Your task to perform on an android device: change alarm snooze length Image 0: 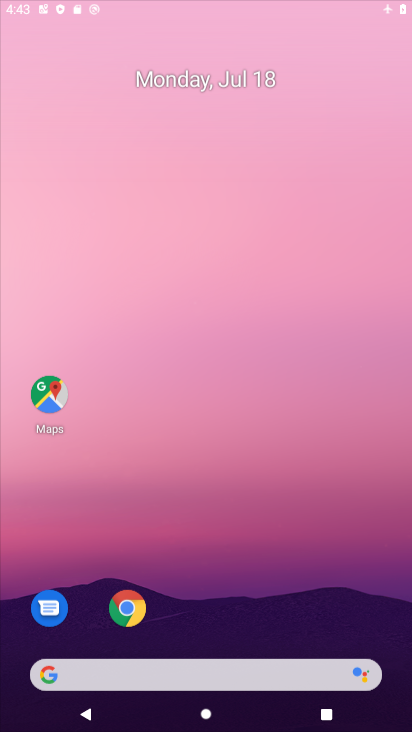
Step 0: click (230, 53)
Your task to perform on an android device: change alarm snooze length Image 1: 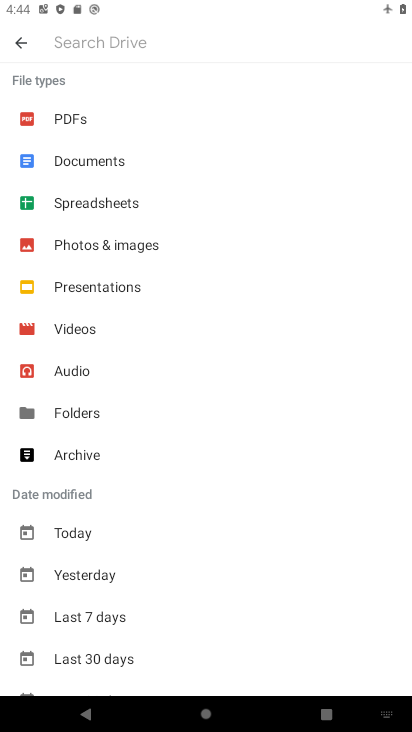
Step 1: press home button
Your task to perform on an android device: change alarm snooze length Image 2: 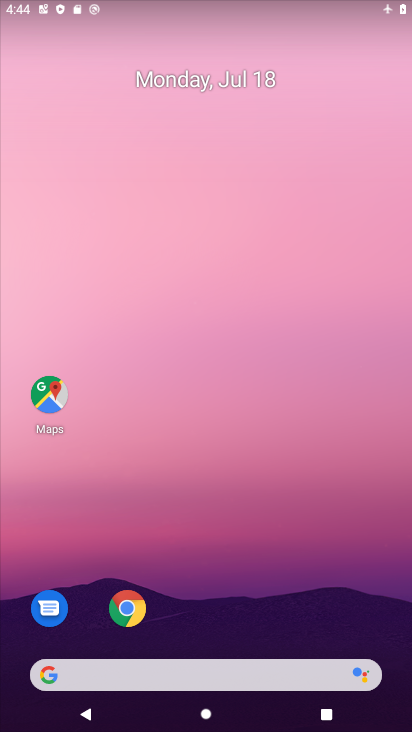
Step 2: drag from (271, 599) to (272, 140)
Your task to perform on an android device: change alarm snooze length Image 3: 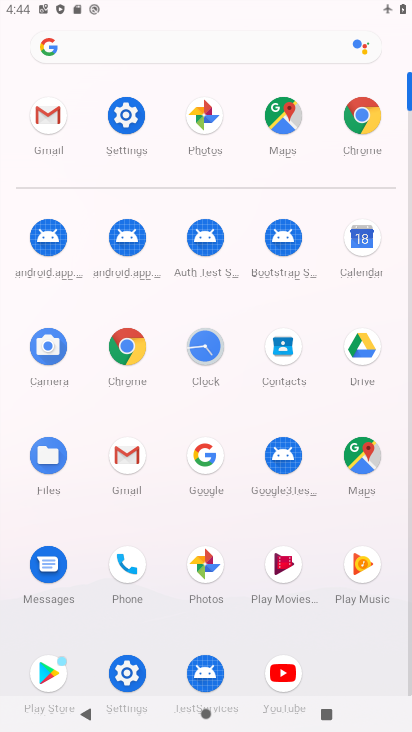
Step 3: click (213, 344)
Your task to perform on an android device: change alarm snooze length Image 4: 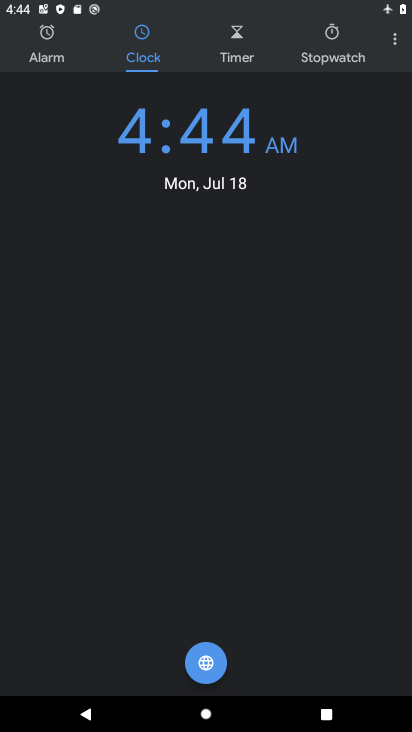
Step 4: click (398, 42)
Your task to perform on an android device: change alarm snooze length Image 5: 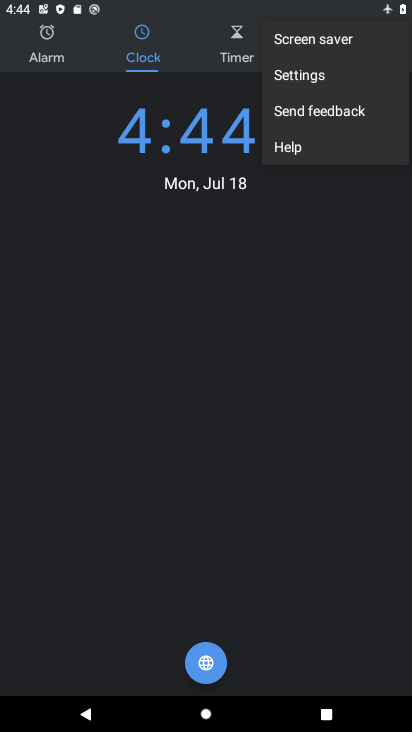
Step 5: click (314, 84)
Your task to perform on an android device: change alarm snooze length Image 6: 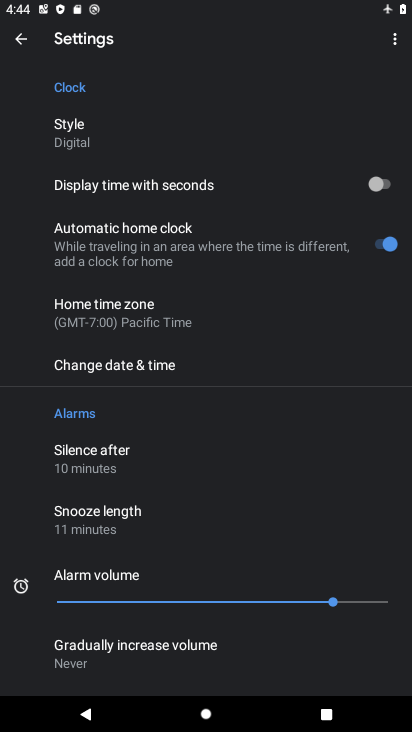
Step 6: click (98, 519)
Your task to perform on an android device: change alarm snooze length Image 7: 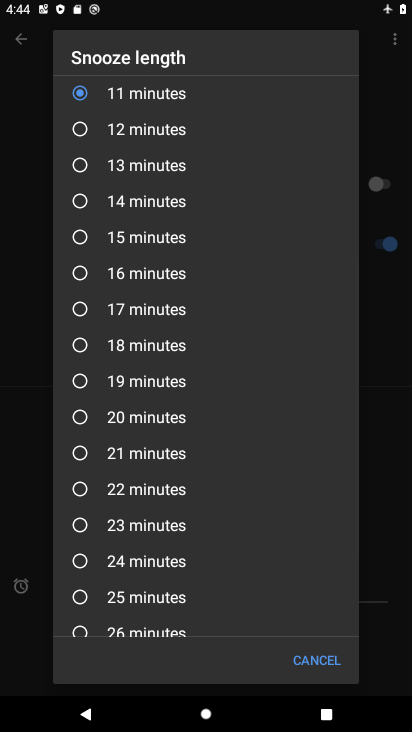
Step 7: click (168, 138)
Your task to perform on an android device: change alarm snooze length Image 8: 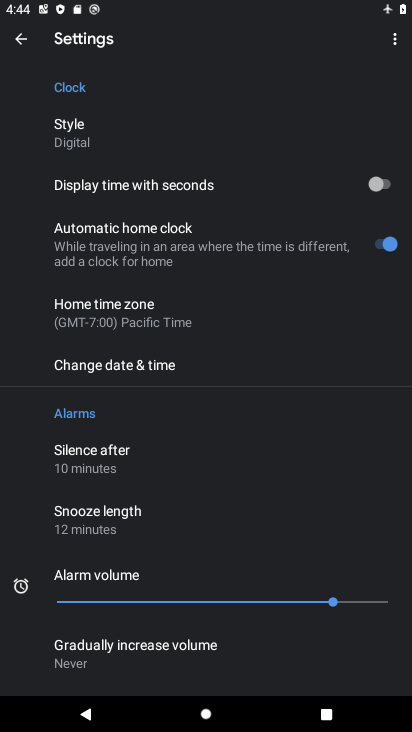
Step 8: task complete